Your task to perform on an android device: Search for pizza restaurants on Maps Image 0: 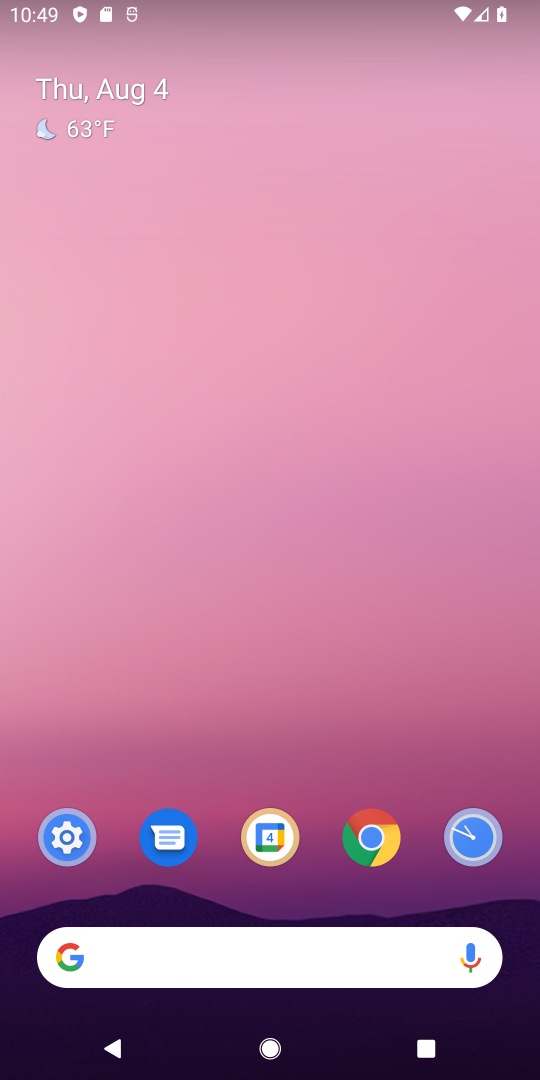
Step 0: press home button
Your task to perform on an android device: Search for pizza restaurants on Maps Image 1: 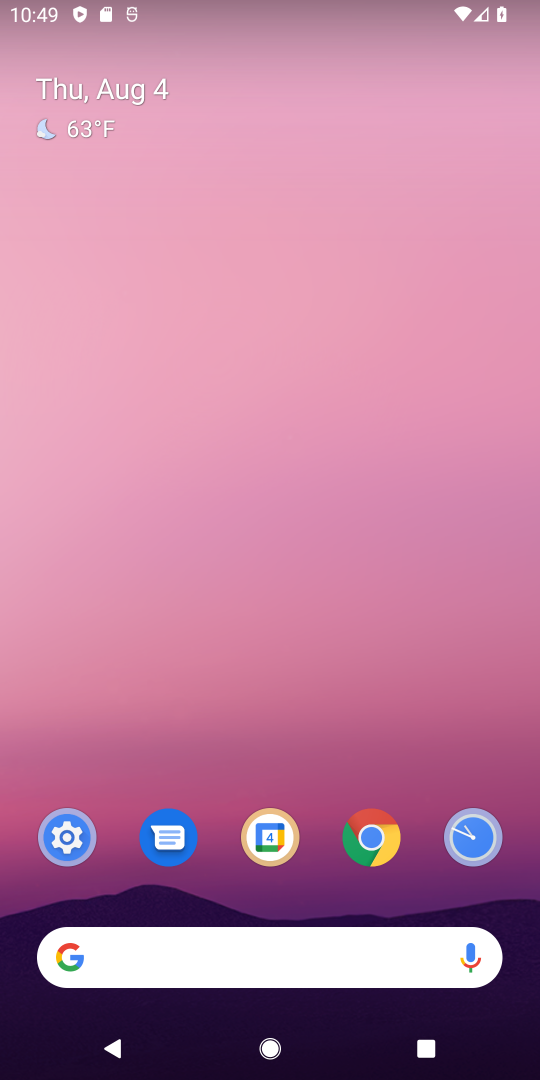
Step 1: press home button
Your task to perform on an android device: Search for pizza restaurants on Maps Image 2: 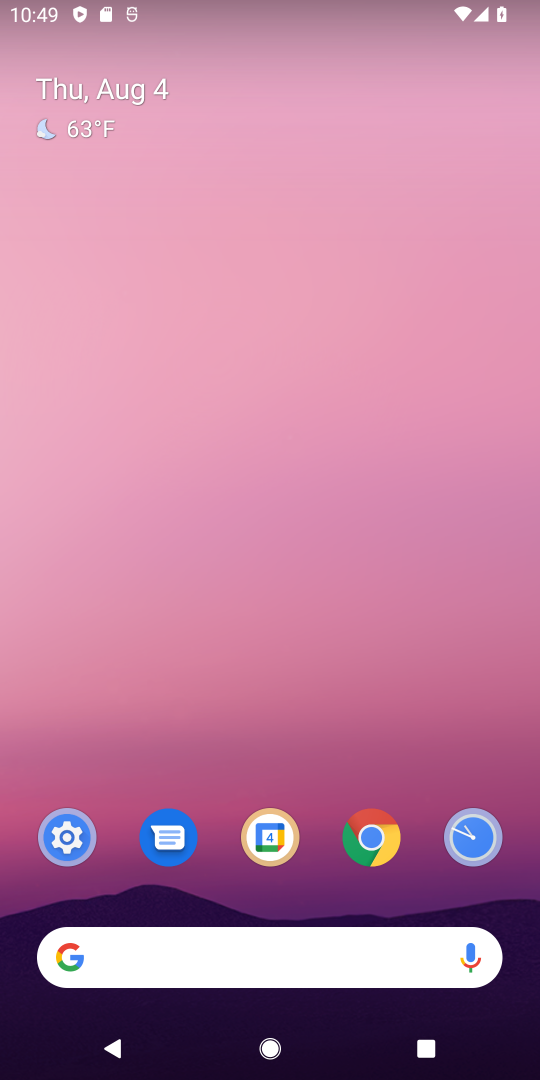
Step 2: drag from (322, 894) to (188, 0)
Your task to perform on an android device: Search for pizza restaurants on Maps Image 3: 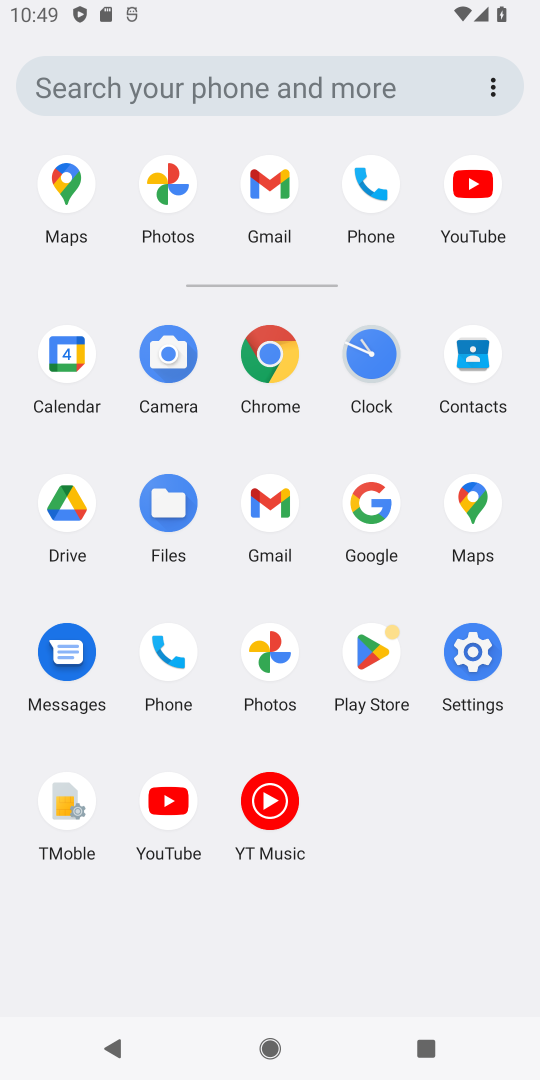
Step 3: click (469, 488)
Your task to perform on an android device: Search for pizza restaurants on Maps Image 4: 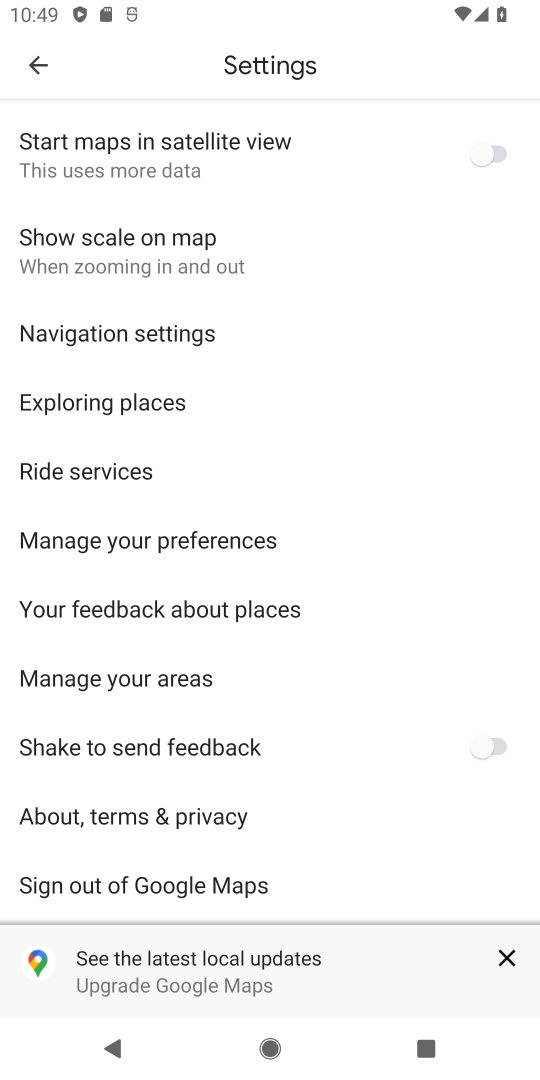
Step 4: click (27, 51)
Your task to perform on an android device: Search for pizza restaurants on Maps Image 5: 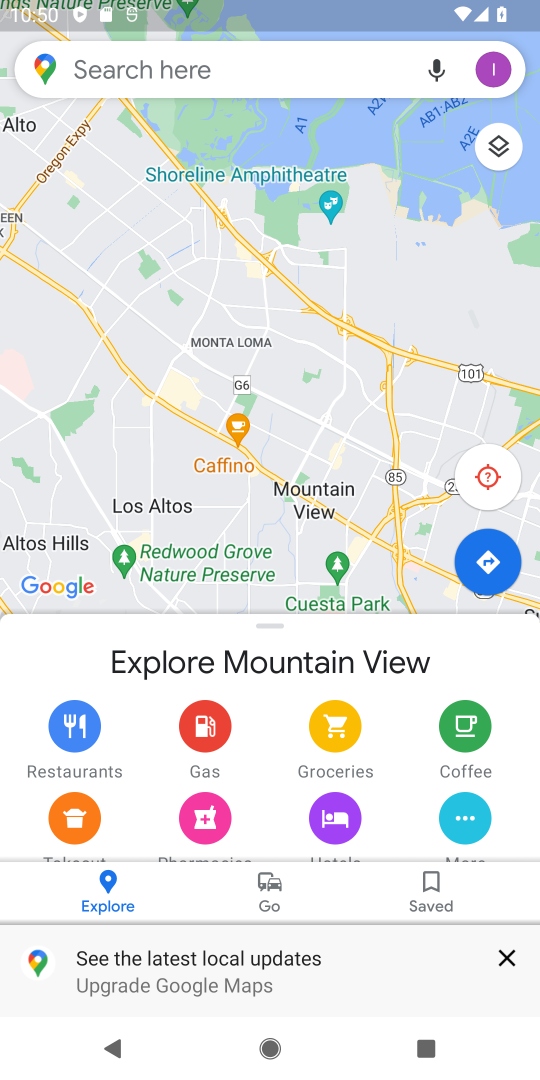
Step 5: click (142, 64)
Your task to perform on an android device: Search for pizza restaurants on Maps Image 6: 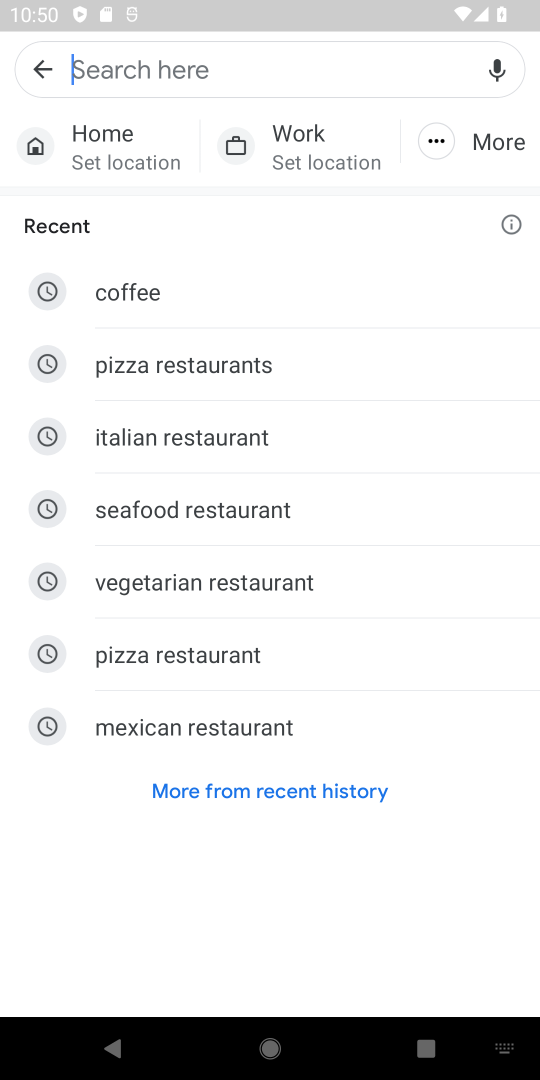
Step 6: click (157, 659)
Your task to perform on an android device: Search for pizza restaurants on Maps Image 7: 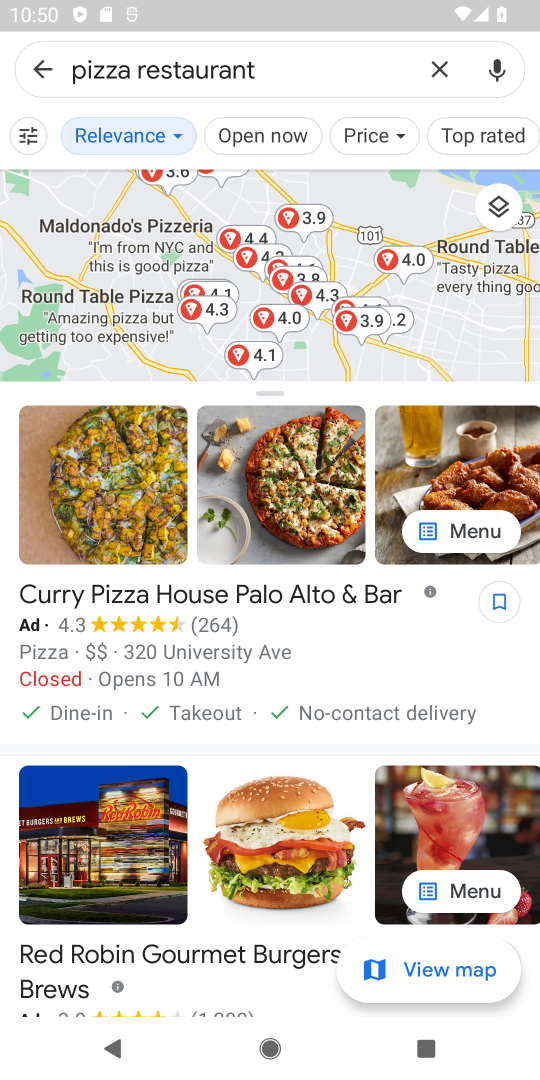
Step 7: task complete